Your task to perform on an android device: Open settings on Google Maps Image 0: 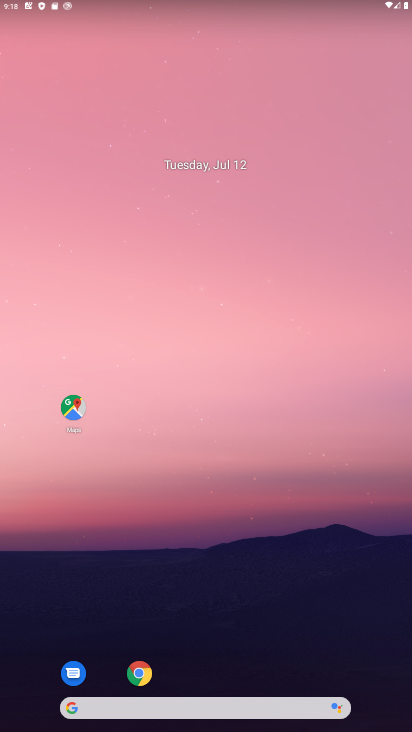
Step 0: drag from (203, 382) to (155, 54)
Your task to perform on an android device: Open settings on Google Maps Image 1: 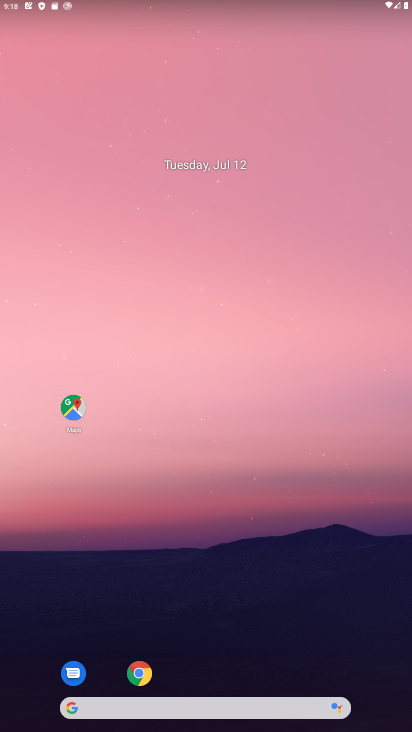
Step 1: drag from (237, 272) to (145, 30)
Your task to perform on an android device: Open settings on Google Maps Image 2: 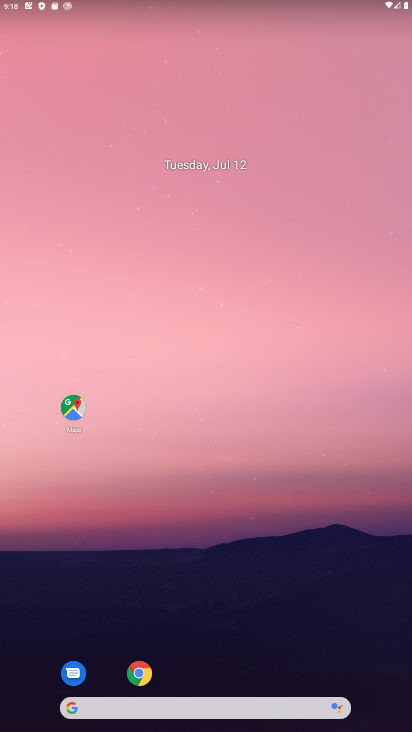
Step 2: drag from (205, 660) to (74, 407)
Your task to perform on an android device: Open settings on Google Maps Image 3: 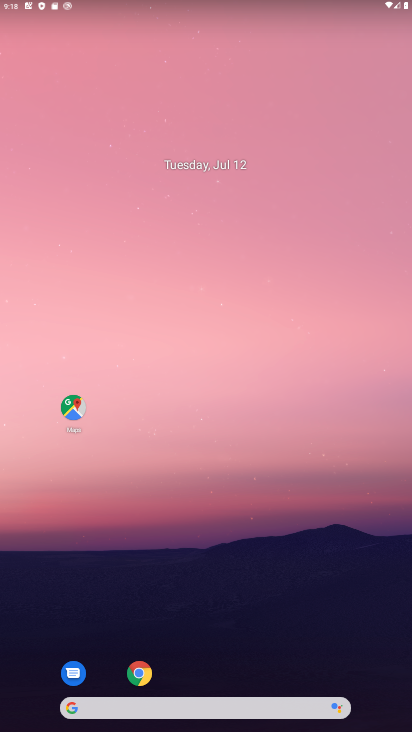
Step 3: click (72, 406)
Your task to perform on an android device: Open settings on Google Maps Image 4: 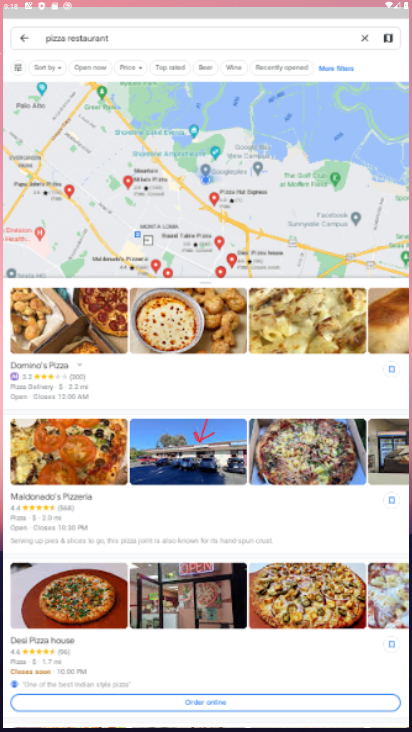
Step 4: click (72, 412)
Your task to perform on an android device: Open settings on Google Maps Image 5: 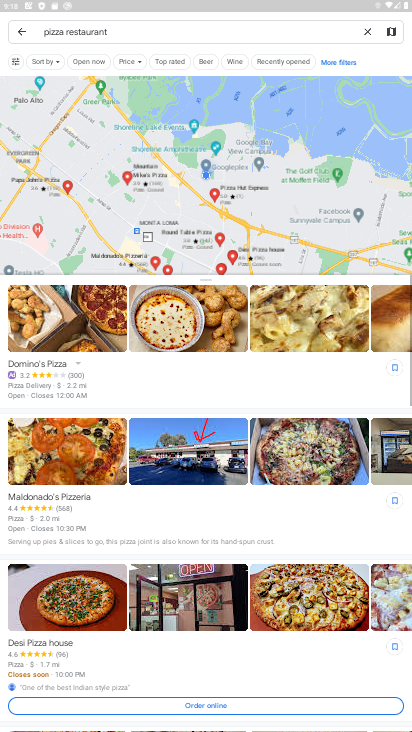
Step 5: click (23, 35)
Your task to perform on an android device: Open settings on Google Maps Image 6: 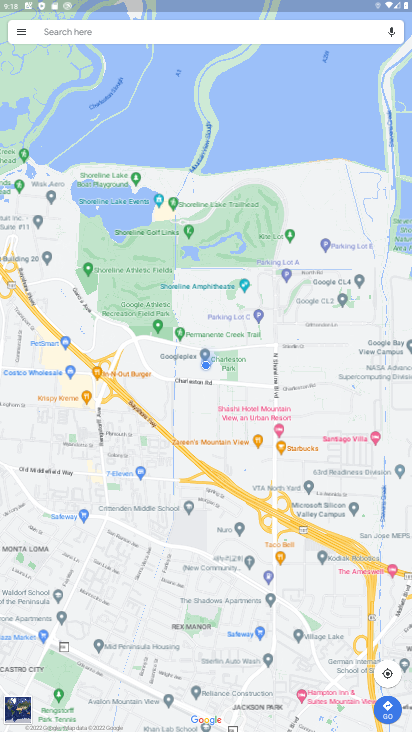
Step 6: click (23, 35)
Your task to perform on an android device: Open settings on Google Maps Image 7: 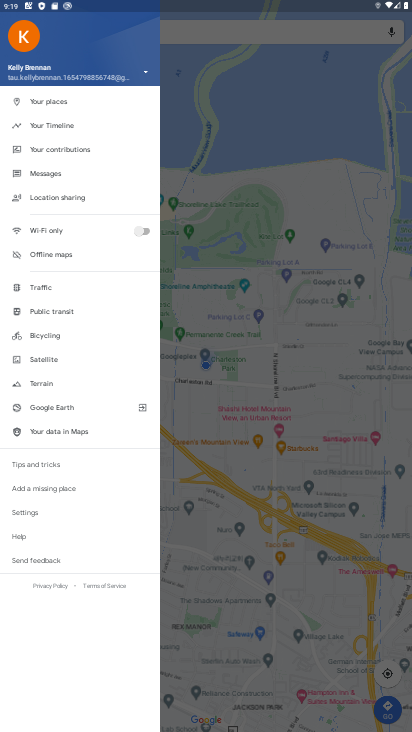
Step 7: click (37, 513)
Your task to perform on an android device: Open settings on Google Maps Image 8: 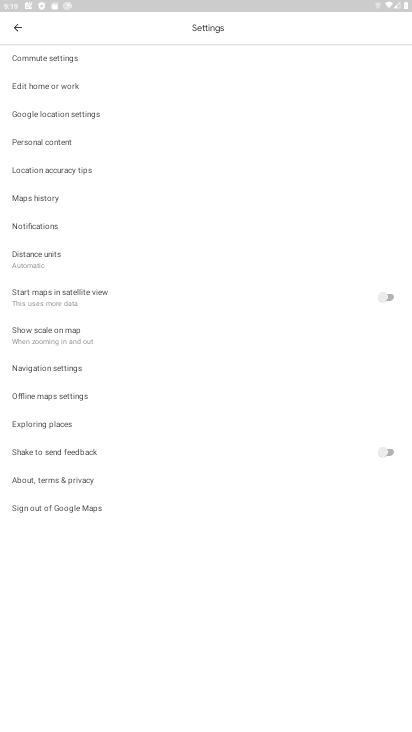
Step 8: task complete